Your task to perform on an android device: snooze an email in the gmail app Image 0: 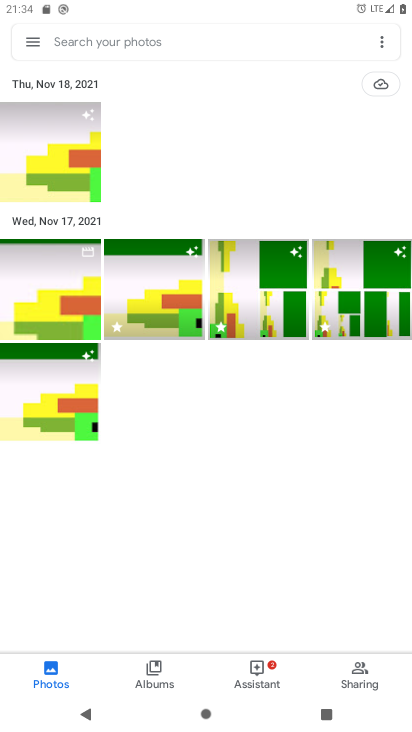
Step 0: press home button
Your task to perform on an android device: snooze an email in the gmail app Image 1: 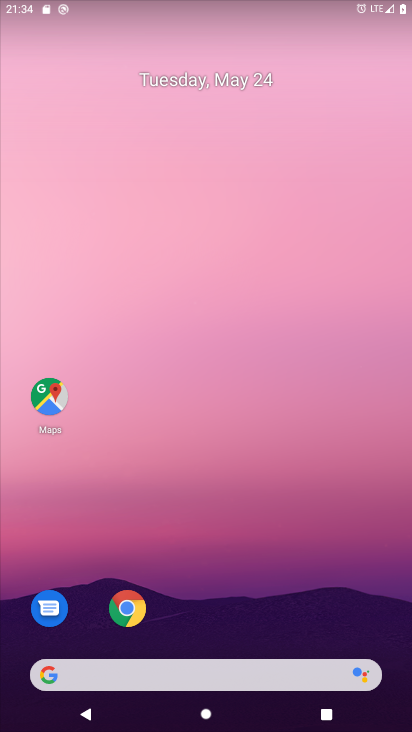
Step 1: drag from (225, 598) to (222, 80)
Your task to perform on an android device: snooze an email in the gmail app Image 2: 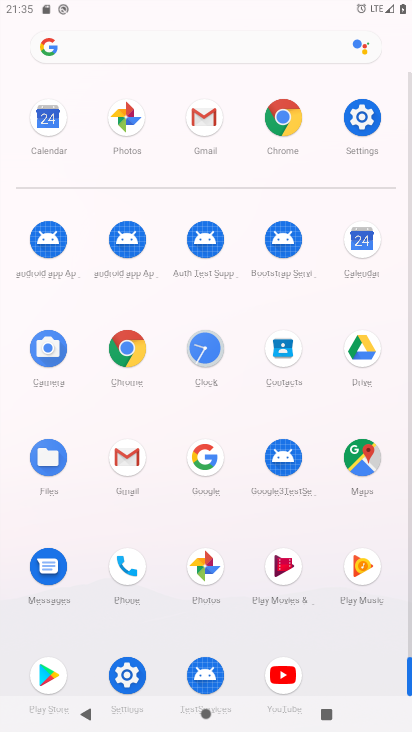
Step 2: click (133, 459)
Your task to perform on an android device: snooze an email in the gmail app Image 3: 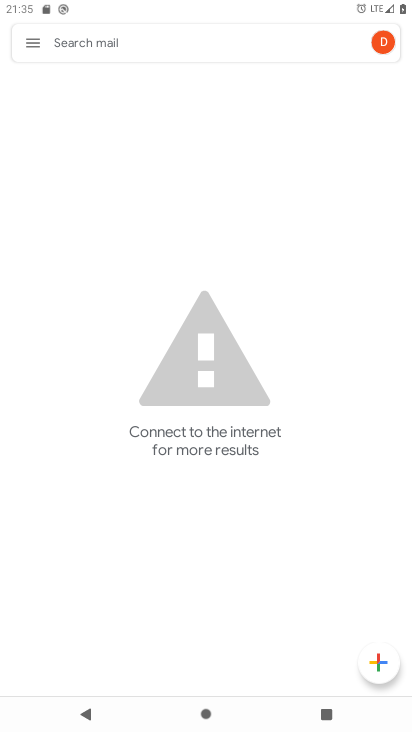
Step 3: click (29, 40)
Your task to perform on an android device: snooze an email in the gmail app Image 4: 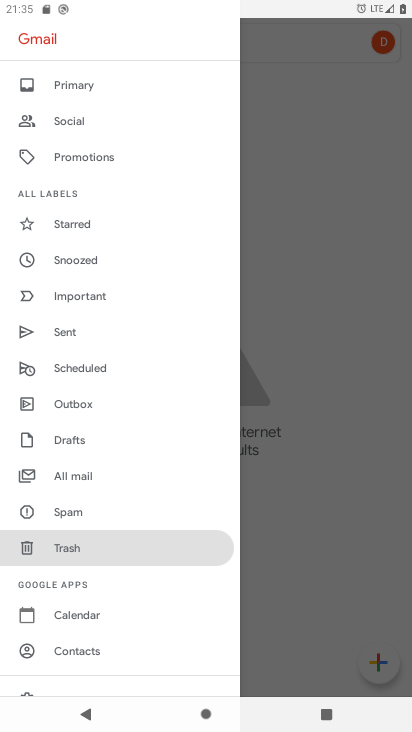
Step 4: click (91, 478)
Your task to perform on an android device: snooze an email in the gmail app Image 5: 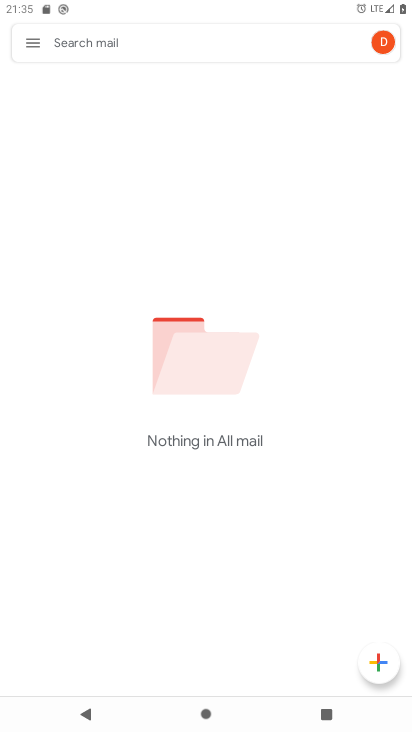
Step 5: click (32, 47)
Your task to perform on an android device: snooze an email in the gmail app Image 6: 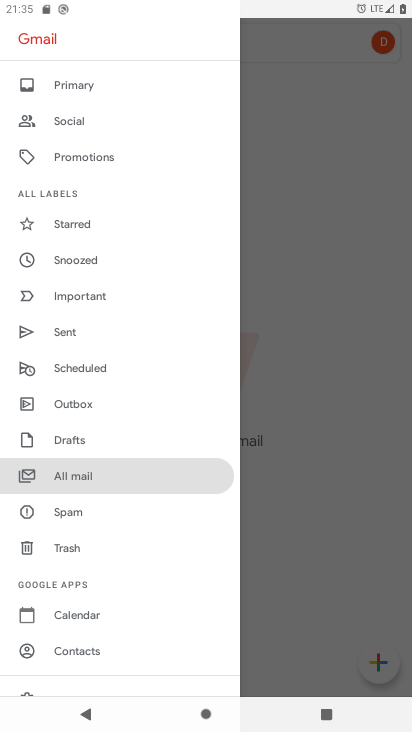
Step 6: click (295, 353)
Your task to perform on an android device: snooze an email in the gmail app Image 7: 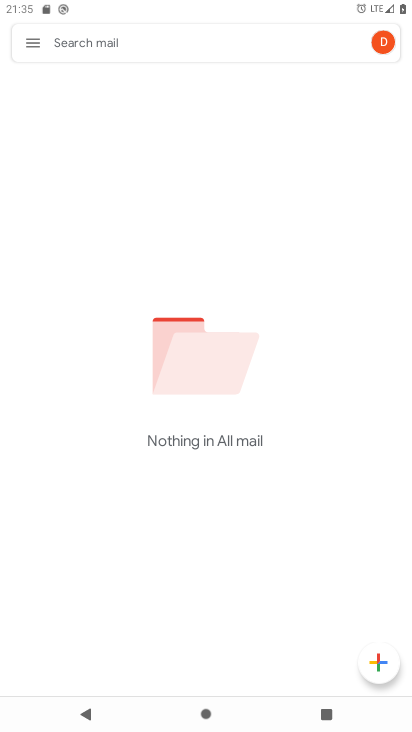
Step 7: task complete